Your task to perform on an android device: Open Maps and search for coffee Image 0: 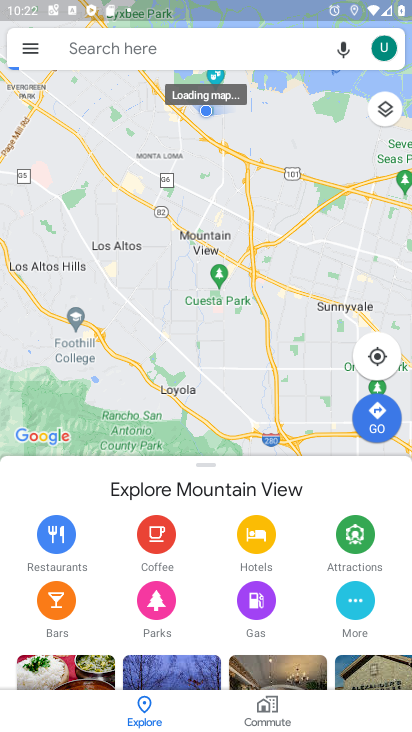
Step 0: press home button
Your task to perform on an android device: Open Maps and search for coffee Image 1: 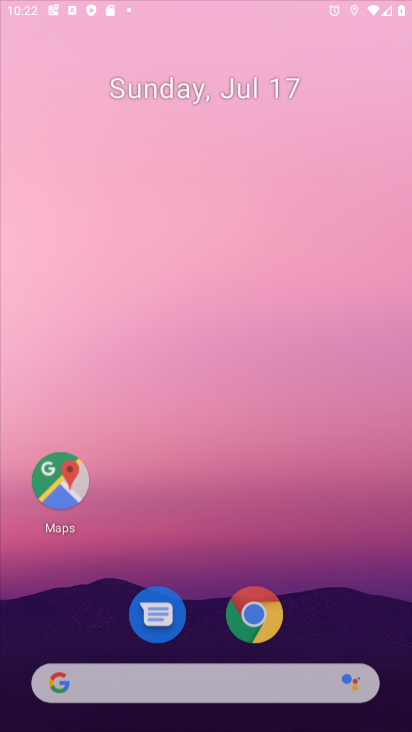
Step 1: click (140, 54)
Your task to perform on an android device: Open Maps and search for coffee Image 2: 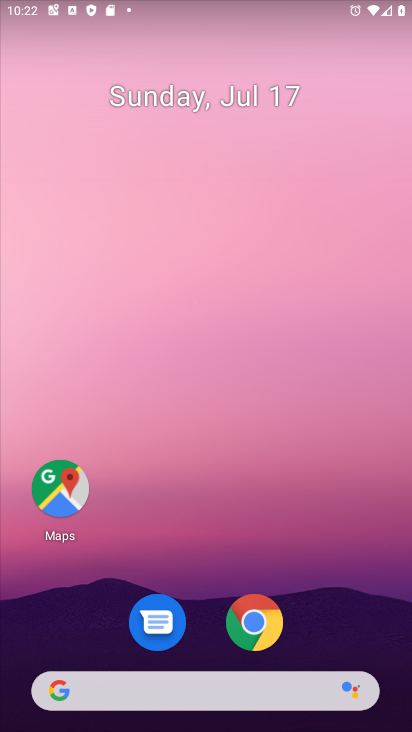
Step 2: click (70, 462)
Your task to perform on an android device: Open Maps and search for coffee Image 3: 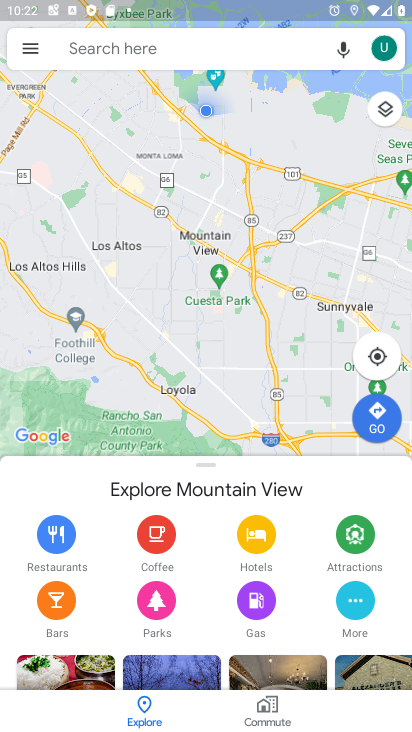
Step 3: click (189, 46)
Your task to perform on an android device: Open Maps and search for coffee Image 4: 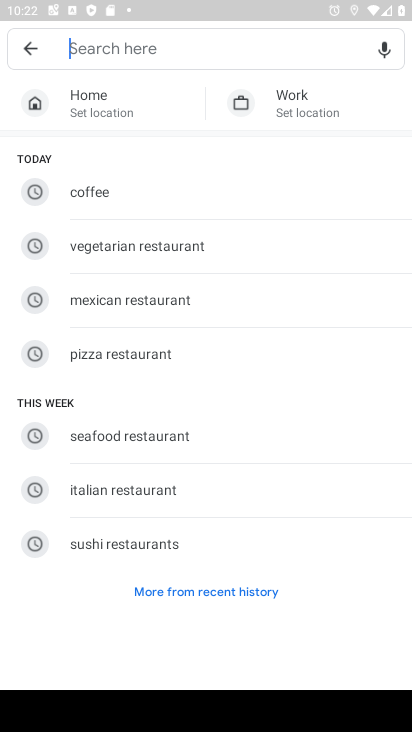
Step 4: click (109, 184)
Your task to perform on an android device: Open Maps and search for coffee Image 5: 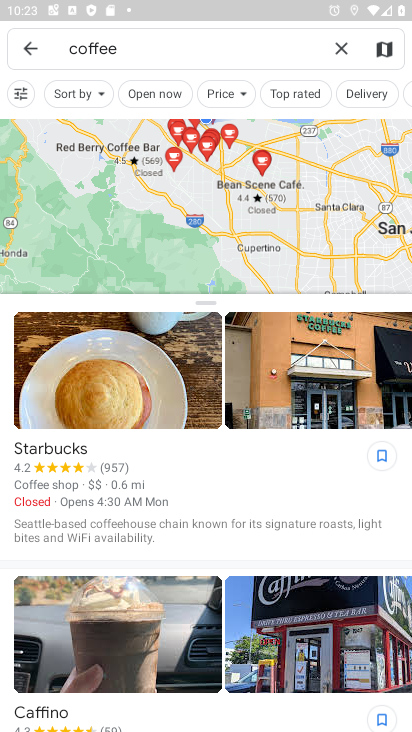
Step 5: task complete